Your task to perform on an android device: Search for pizza restaurants on Maps Image 0: 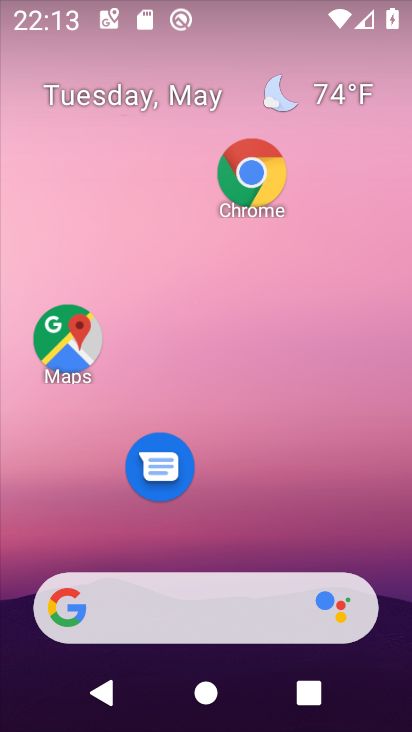
Step 0: drag from (345, 528) to (365, 162)
Your task to perform on an android device: Search for pizza restaurants on Maps Image 1: 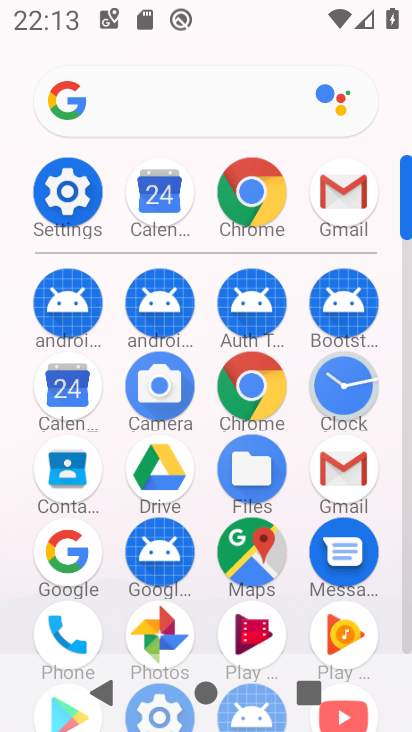
Step 1: click (238, 550)
Your task to perform on an android device: Search for pizza restaurants on Maps Image 2: 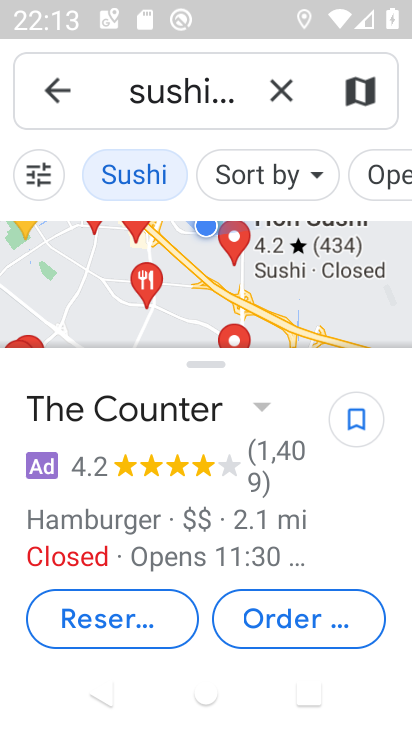
Step 2: click (294, 90)
Your task to perform on an android device: Search for pizza restaurants on Maps Image 3: 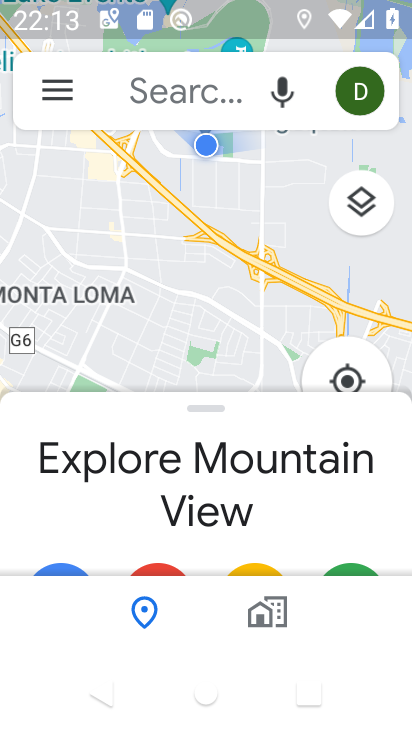
Step 3: click (206, 94)
Your task to perform on an android device: Search for pizza restaurants on Maps Image 4: 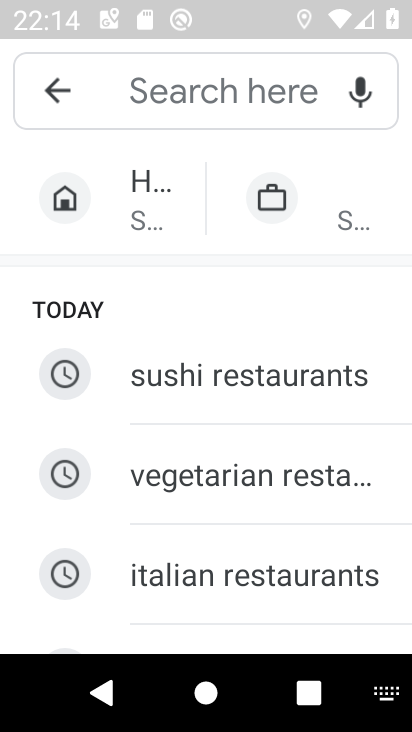
Step 4: type "pizza restaurants "
Your task to perform on an android device: Search for pizza restaurants on Maps Image 5: 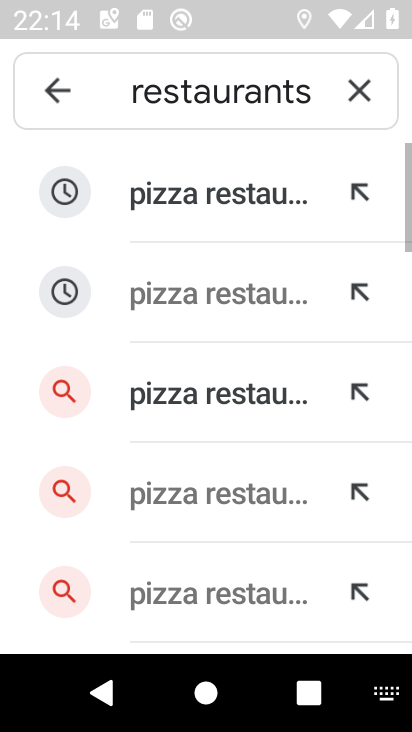
Step 5: click (187, 218)
Your task to perform on an android device: Search for pizza restaurants on Maps Image 6: 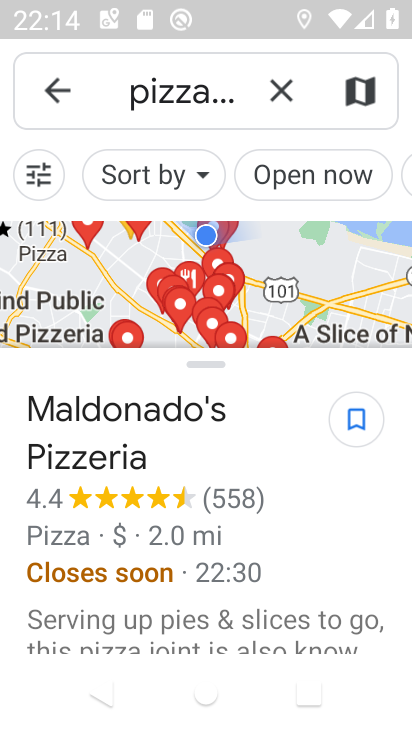
Step 6: task complete